Your task to perform on an android device: What's the weather like in Sydney? Image 0: 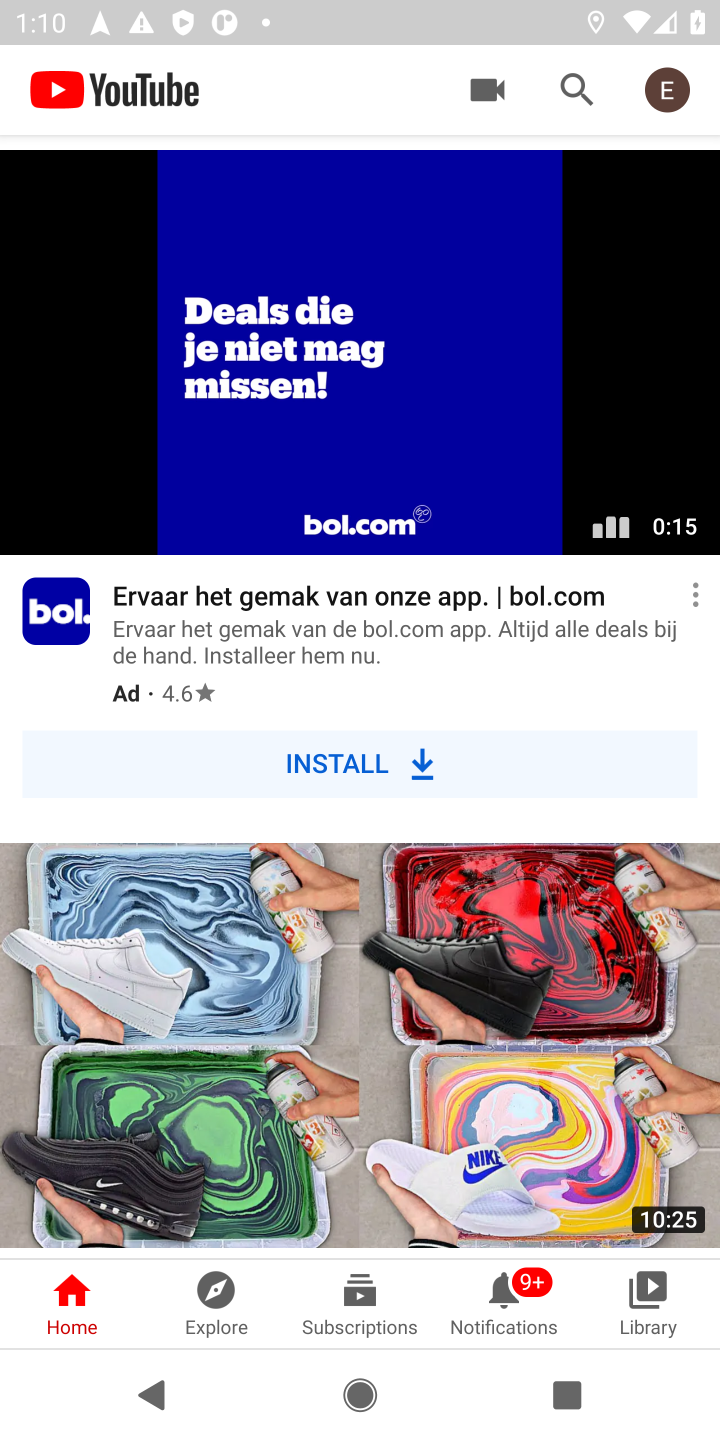
Step 0: press home button
Your task to perform on an android device: What's the weather like in Sydney? Image 1: 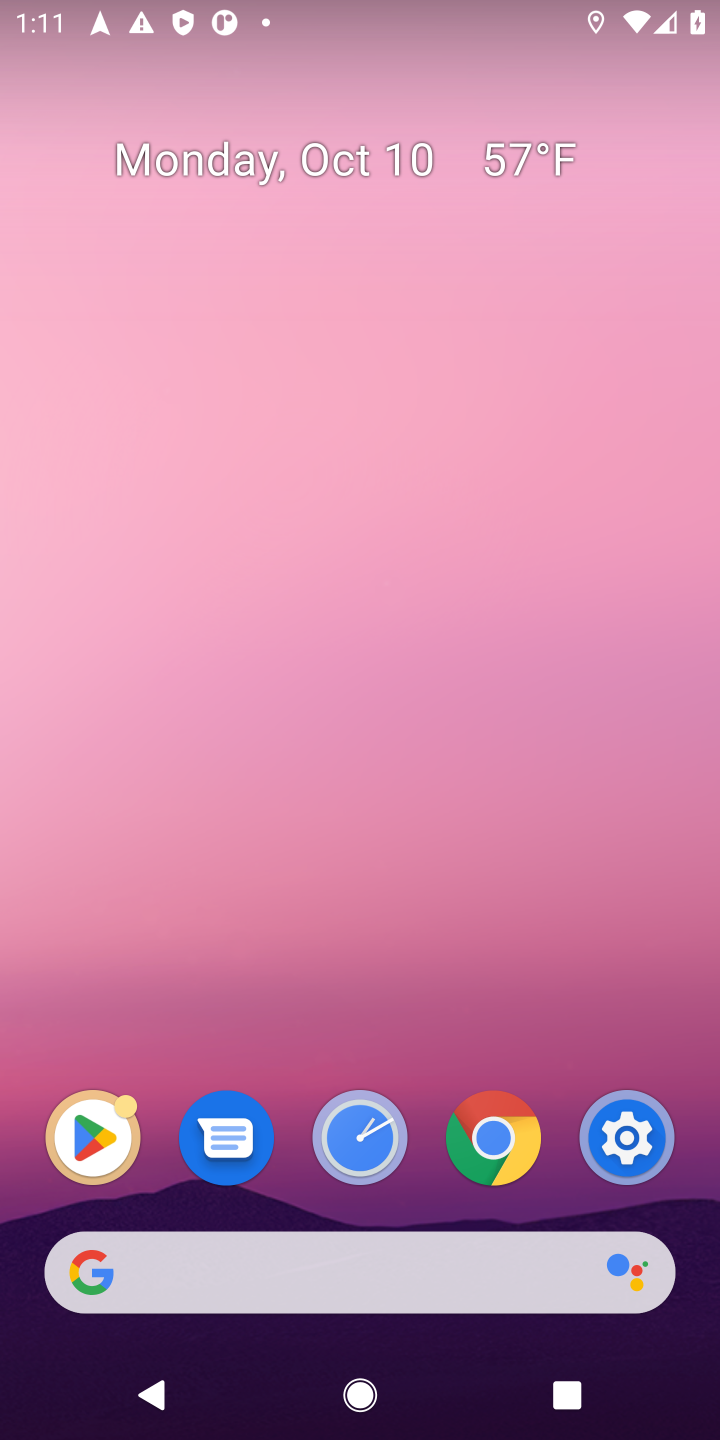
Step 1: click (283, 1266)
Your task to perform on an android device: What's the weather like in Sydney? Image 2: 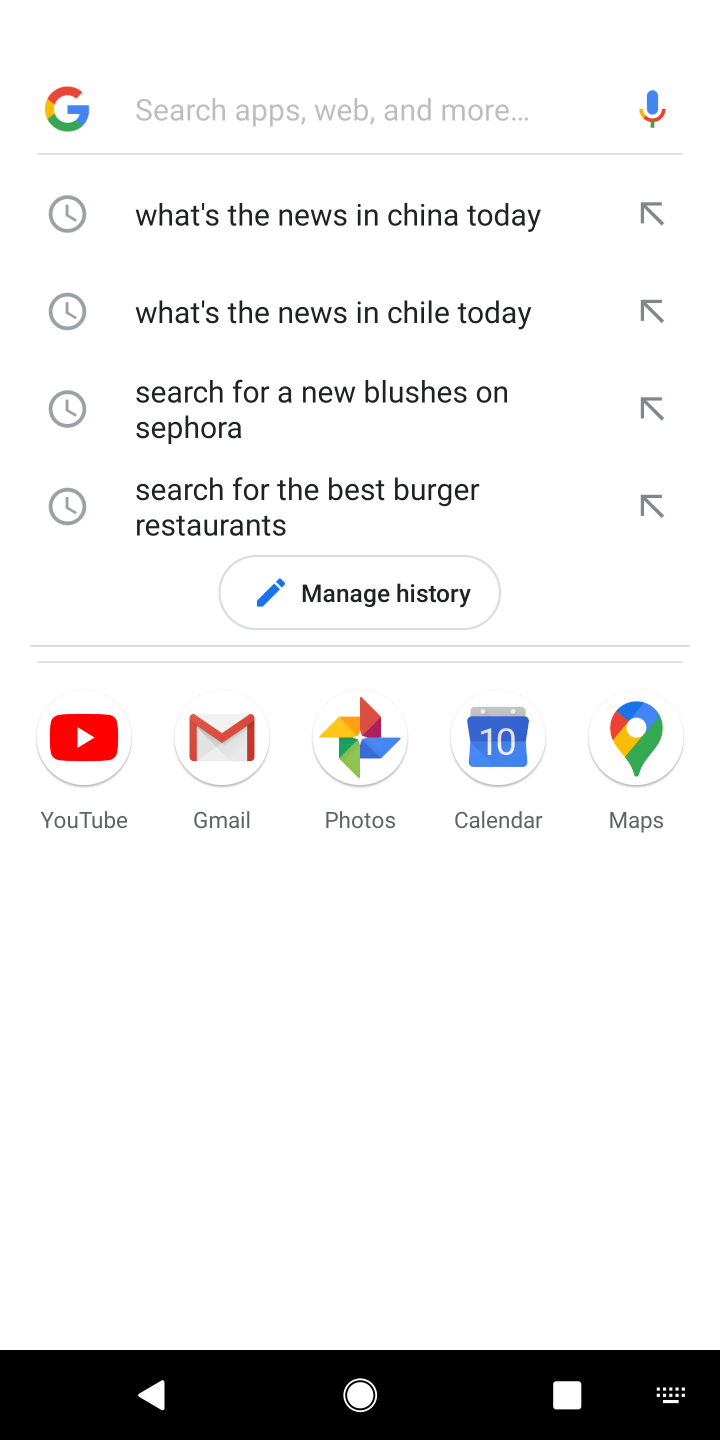
Step 2: type "What's the weather like in Sydney?"
Your task to perform on an android device: What's the weather like in Sydney? Image 3: 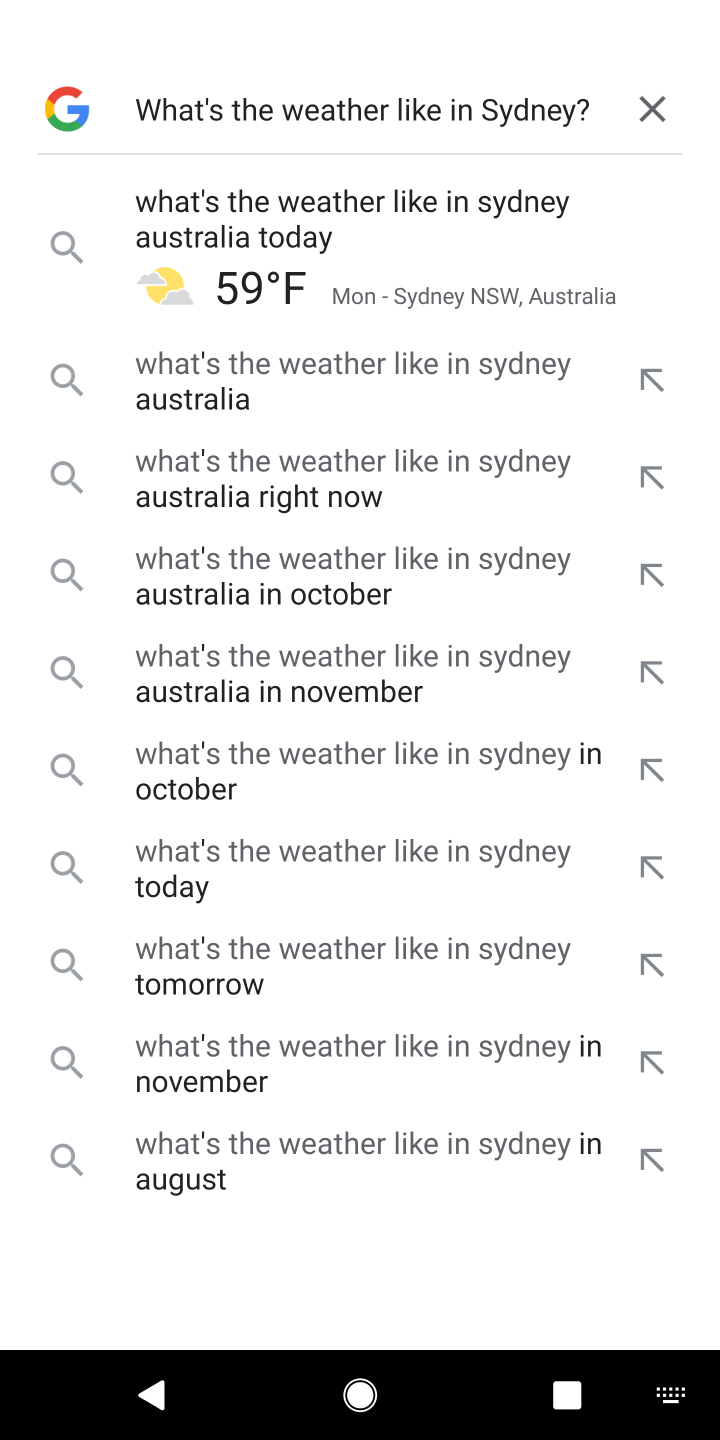
Step 3: click (280, 203)
Your task to perform on an android device: What's the weather like in Sydney? Image 4: 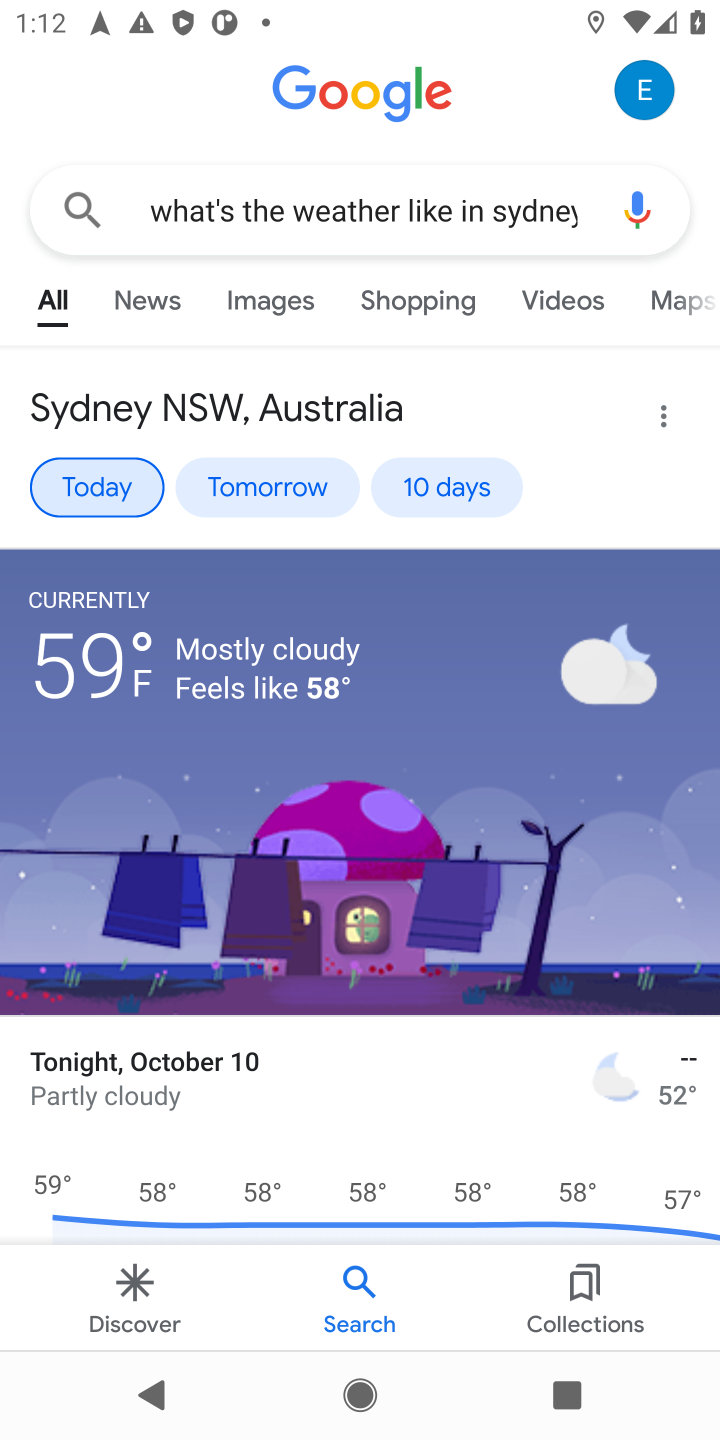
Step 4: task complete